Your task to perform on an android device: check battery use Image 0: 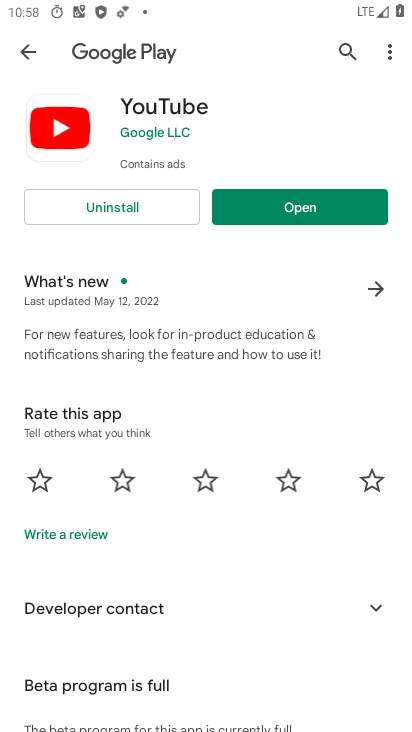
Step 0: press home button
Your task to perform on an android device: check battery use Image 1: 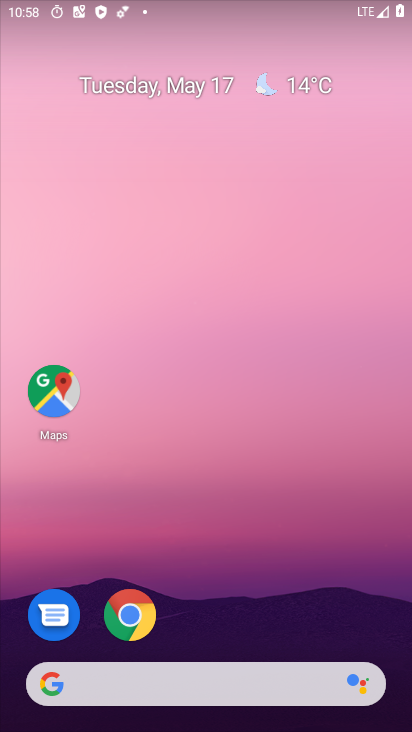
Step 1: drag from (177, 687) to (322, 128)
Your task to perform on an android device: check battery use Image 2: 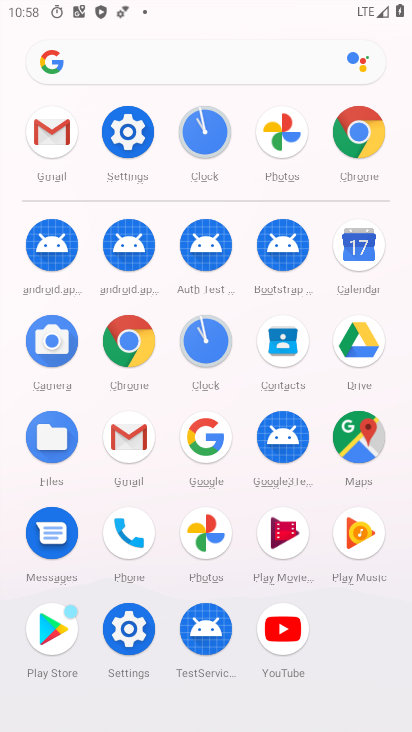
Step 2: click (126, 143)
Your task to perform on an android device: check battery use Image 3: 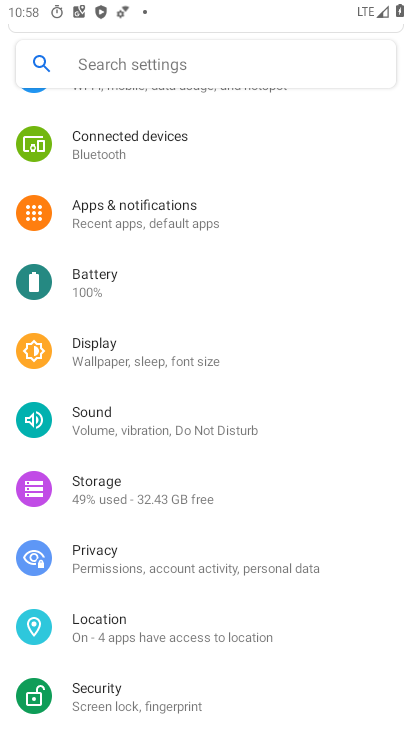
Step 3: click (92, 280)
Your task to perform on an android device: check battery use Image 4: 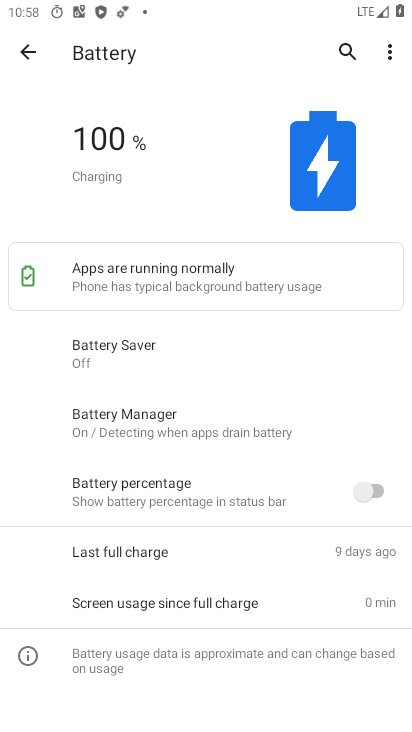
Step 4: click (389, 50)
Your task to perform on an android device: check battery use Image 5: 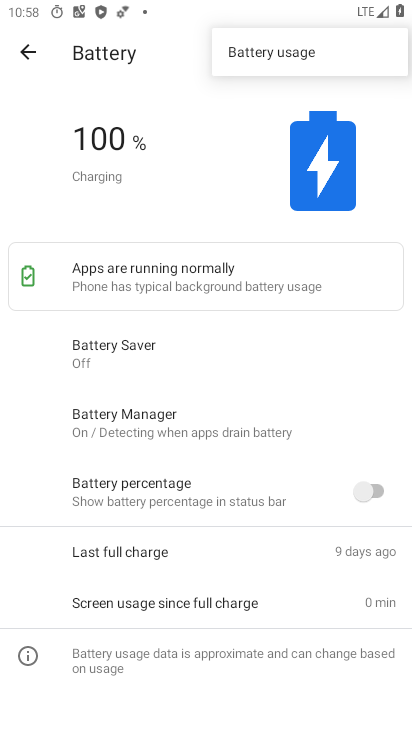
Step 5: click (278, 60)
Your task to perform on an android device: check battery use Image 6: 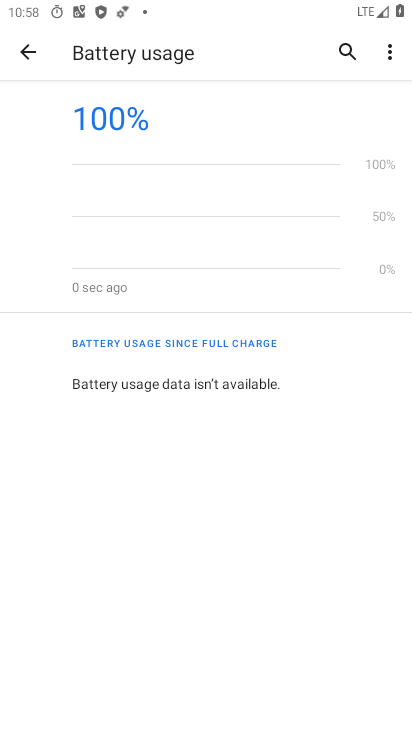
Step 6: task complete